Your task to perform on an android device: Open network settings Image 0: 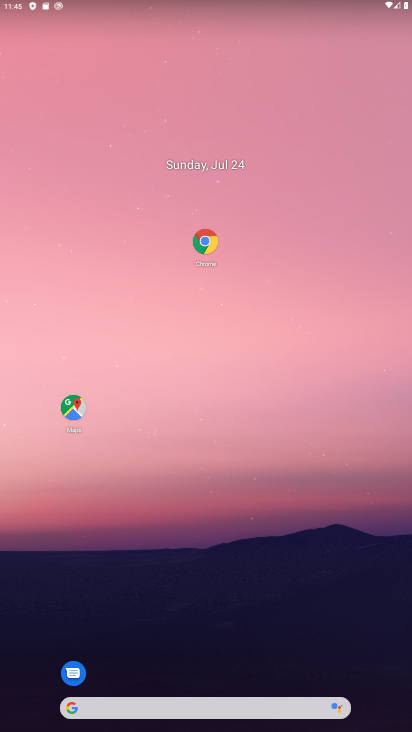
Step 0: drag from (229, 697) to (268, 30)
Your task to perform on an android device: Open network settings Image 1: 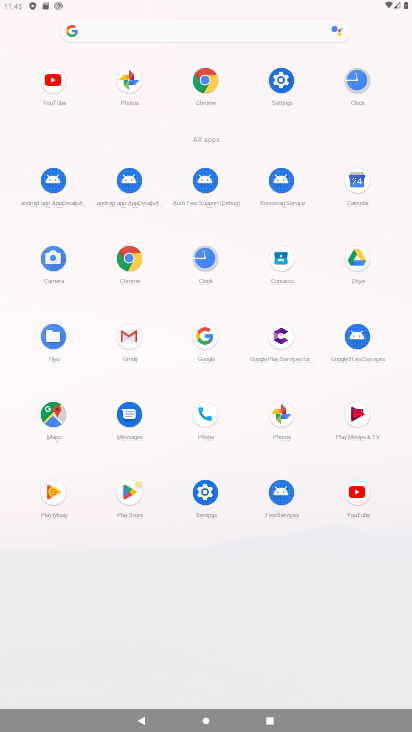
Step 1: click (282, 75)
Your task to perform on an android device: Open network settings Image 2: 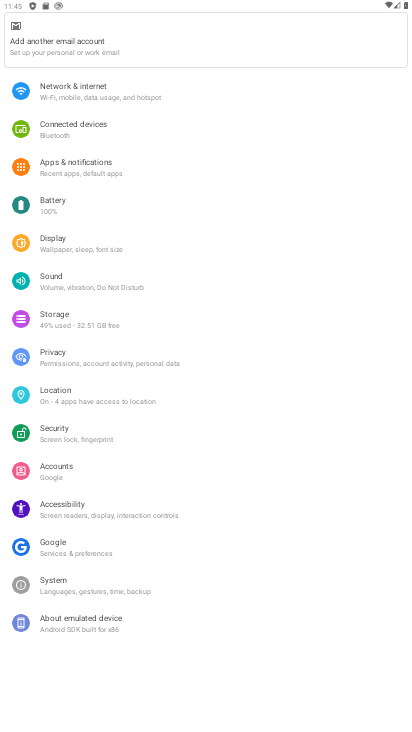
Step 2: click (112, 99)
Your task to perform on an android device: Open network settings Image 3: 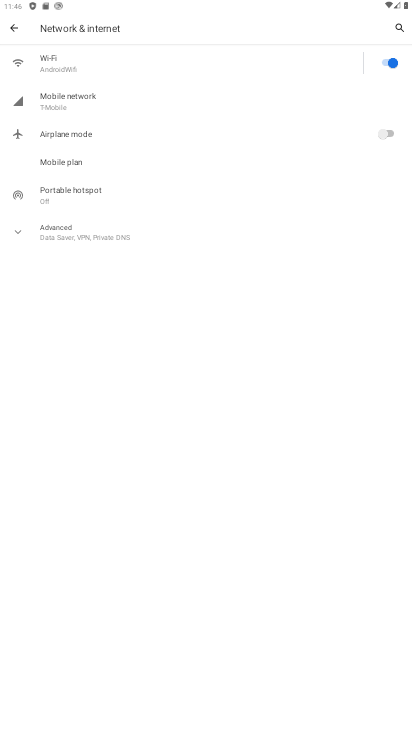
Step 3: press home button
Your task to perform on an android device: Open network settings Image 4: 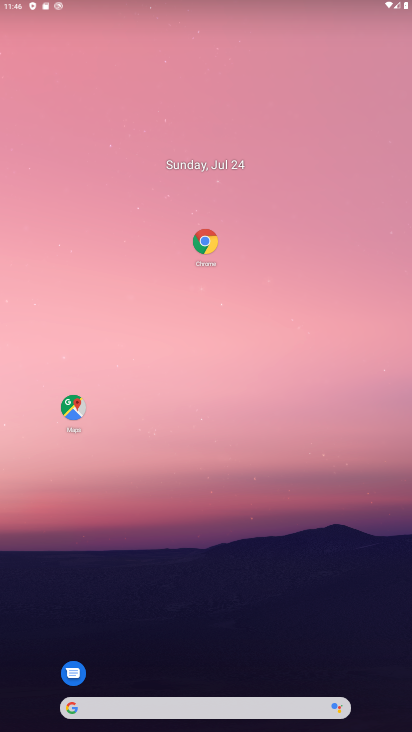
Step 4: drag from (196, 707) to (206, 0)
Your task to perform on an android device: Open network settings Image 5: 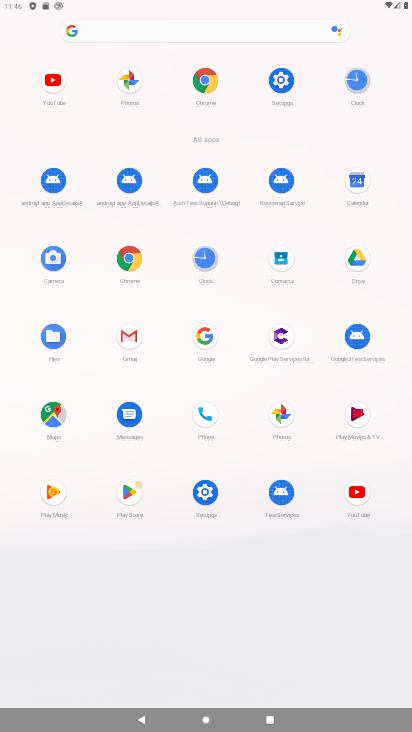
Step 5: click (274, 90)
Your task to perform on an android device: Open network settings Image 6: 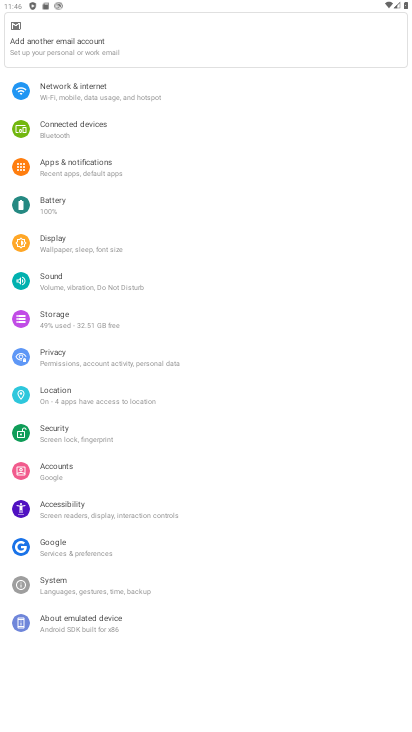
Step 6: click (167, 95)
Your task to perform on an android device: Open network settings Image 7: 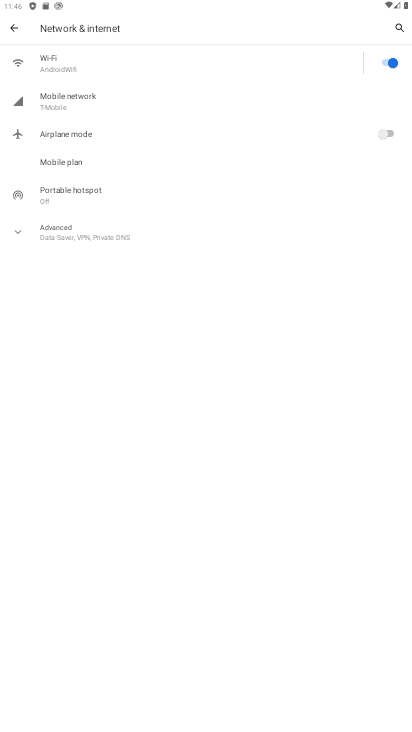
Step 7: task complete